Your task to perform on an android device: see creations saved in the google photos Image 0: 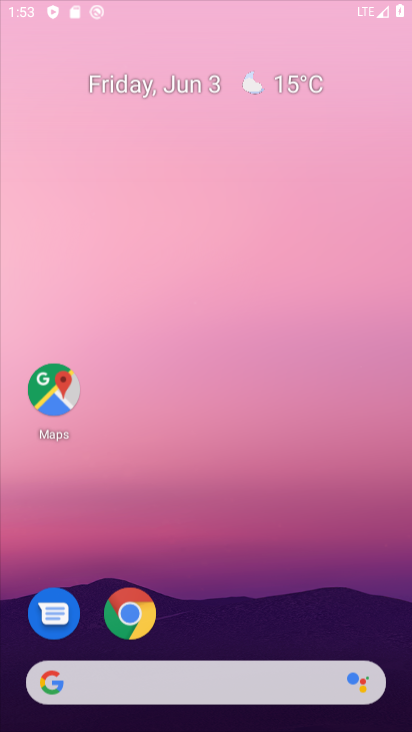
Step 0: drag from (321, 13) to (17, 292)
Your task to perform on an android device: see creations saved in the google photos Image 1: 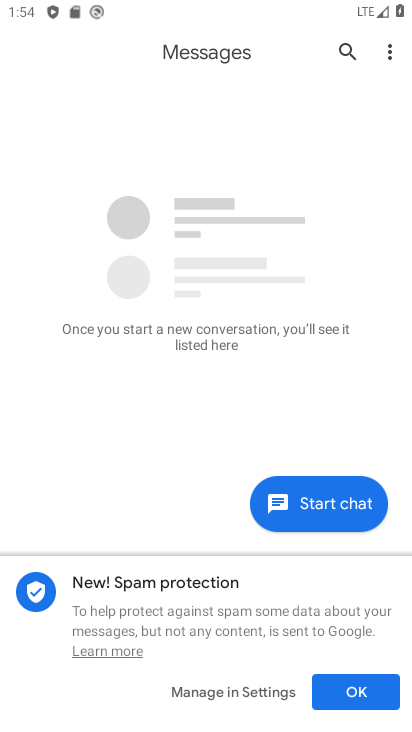
Step 1: drag from (106, 515) to (260, 59)
Your task to perform on an android device: see creations saved in the google photos Image 2: 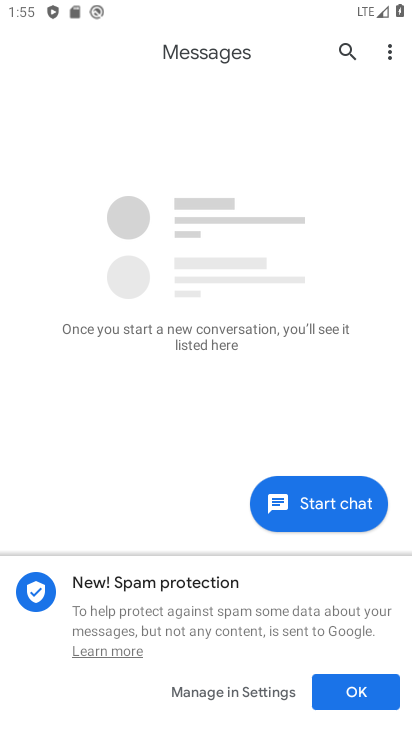
Step 2: press home button
Your task to perform on an android device: see creations saved in the google photos Image 3: 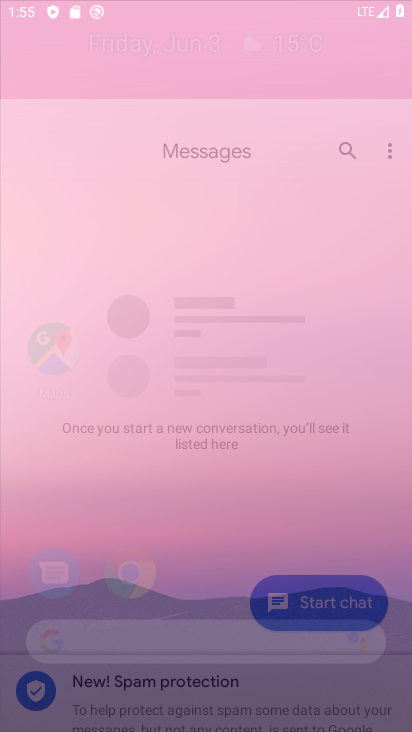
Step 3: drag from (217, 584) to (279, 57)
Your task to perform on an android device: see creations saved in the google photos Image 4: 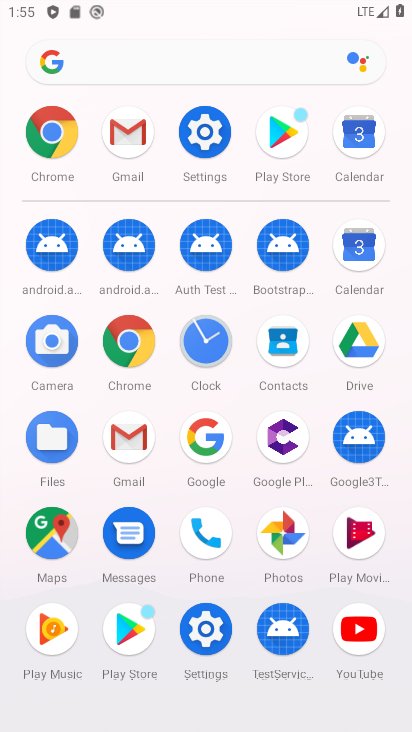
Step 4: click (295, 530)
Your task to perform on an android device: see creations saved in the google photos Image 5: 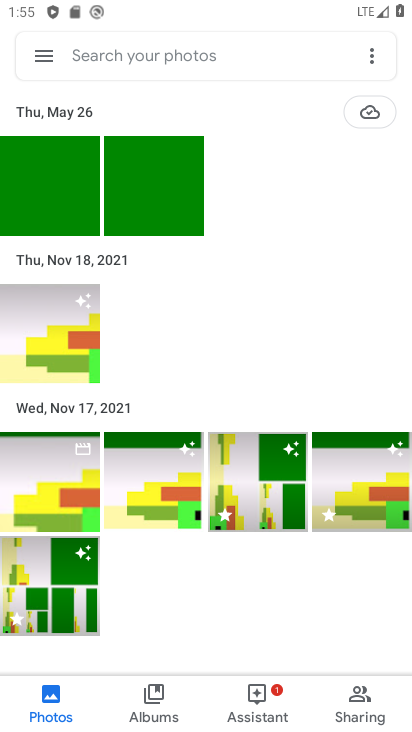
Step 5: drag from (190, 559) to (268, 84)
Your task to perform on an android device: see creations saved in the google photos Image 6: 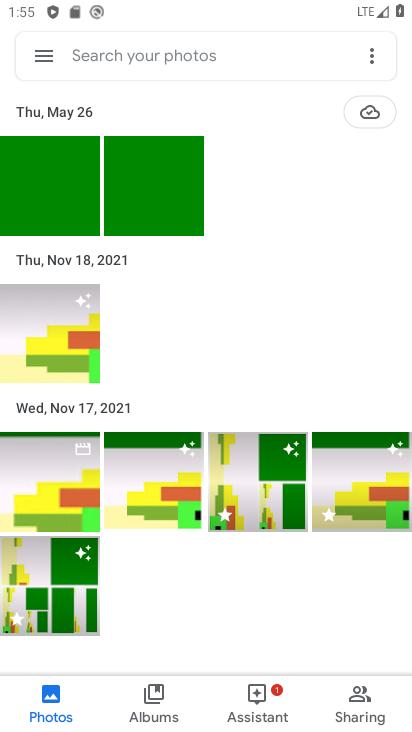
Step 6: click (111, 65)
Your task to perform on an android device: see creations saved in the google photos Image 7: 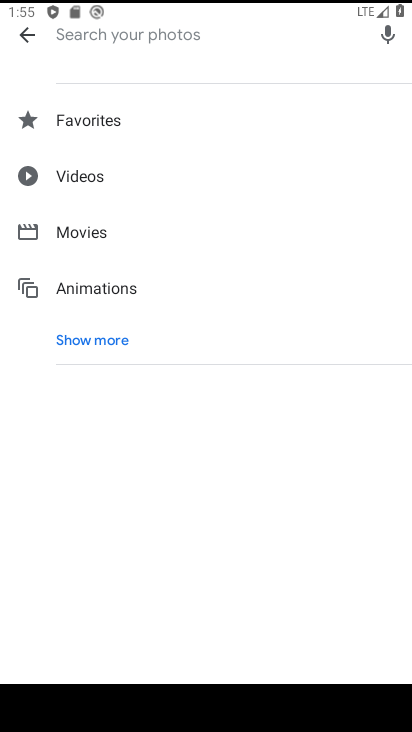
Step 7: click (83, 337)
Your task to perform on an android device: see creations saved in the google photos Image 8: 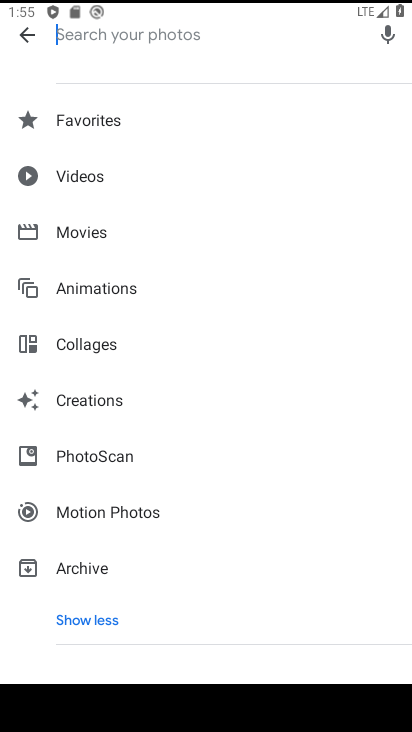
Step 8: click (114, 399)
Your task to perform on an android device: see creations saved in the google photos Image 9: 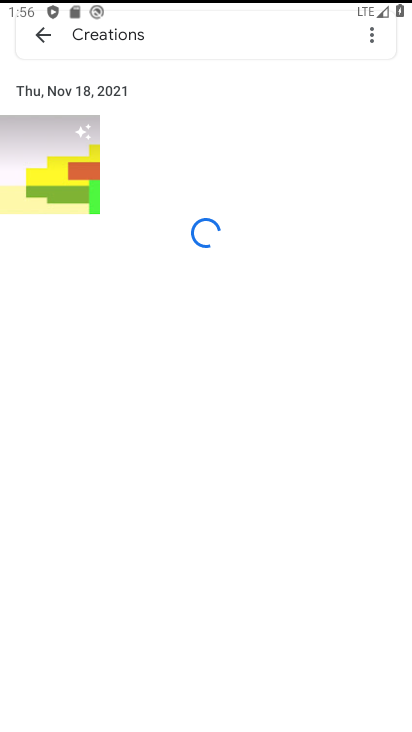
Step 9: drag from (171, 491) to (217, 233)
Your task to perform on an android device: see creations saved in the google photos Image 10: 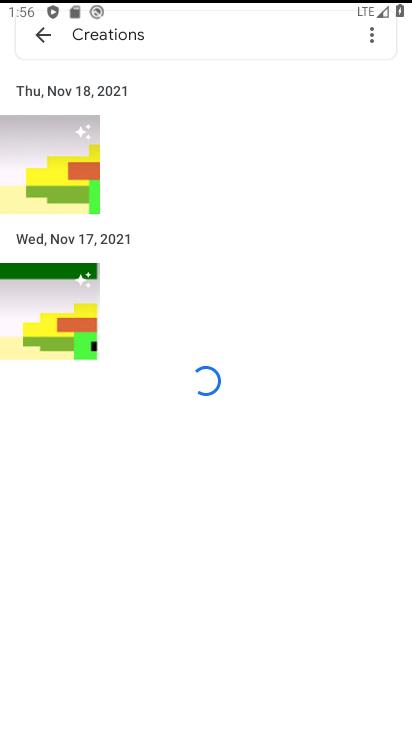
Step 10: click (64, 172)
Your task to perform on an android device: see creations saved in the google photos Image 11: 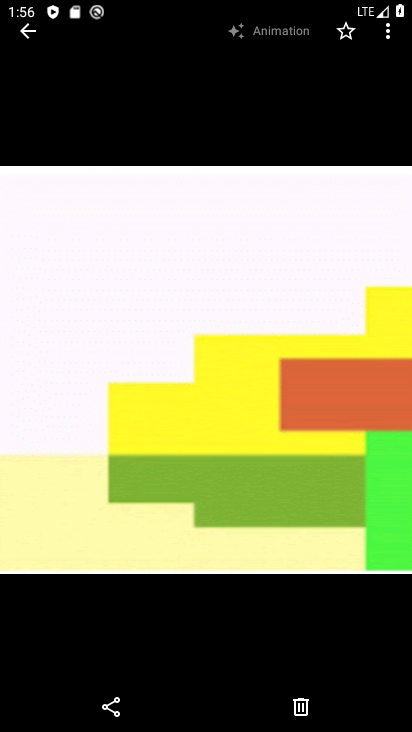
Step 11: task complete